Your task to perform on an android device: all mails in gmail Image 0: 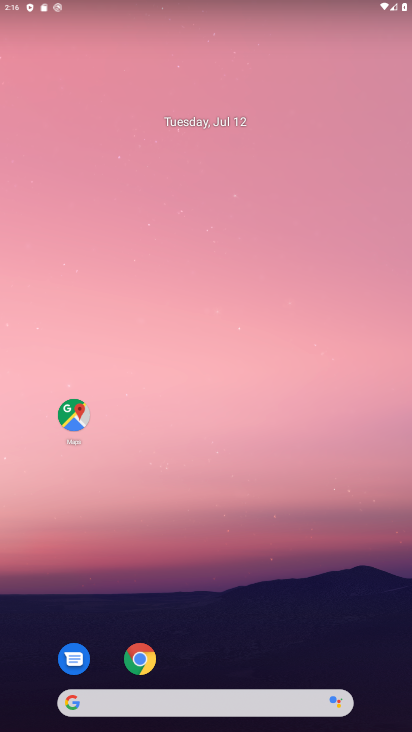
Step 0: drag from (293, 456) to (332, 195)
Your task to perform on an android device: all mails in gmail Image 1: 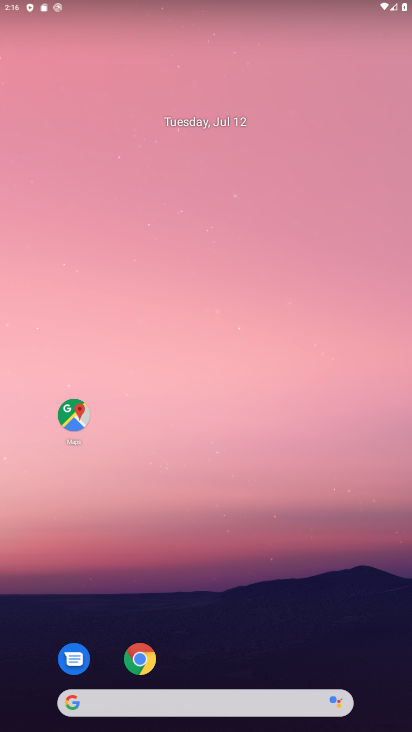
Step 1: drag from (163, 597) to (222, 222)
Your task to perform on an android device: all mails in gmail Image 2: 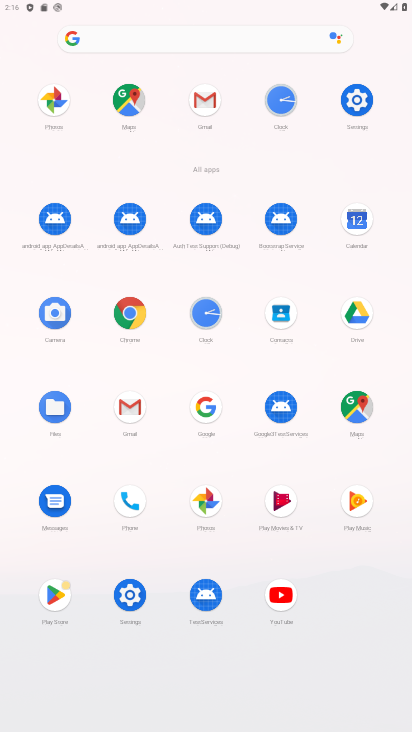
Step 2: click (128, 404)
Your task to perform on an android device: all mails in gmail Image 3: 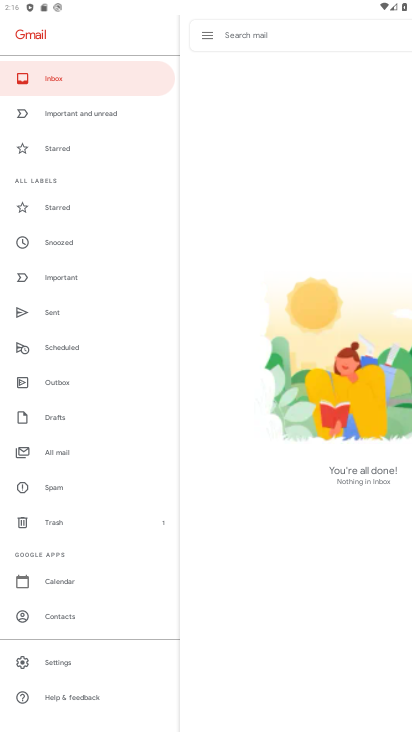
Step 3: click (54, 452)
Your task to perform on an android device: all mails in gmail Image 4: 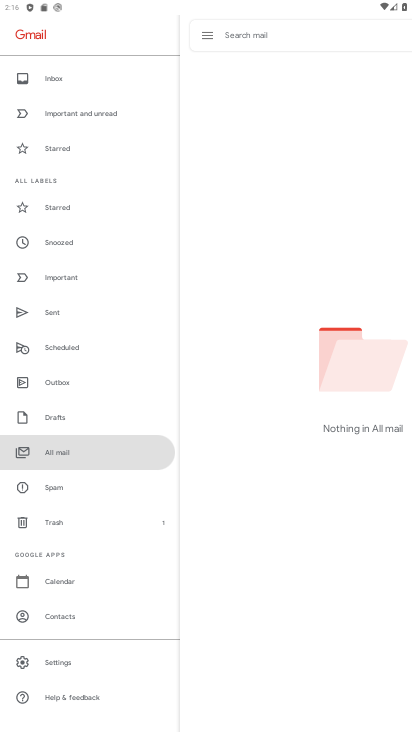
Step 4: task complete